Your task to perform on an android device: What does the iPhone 8 look like? Image 0: 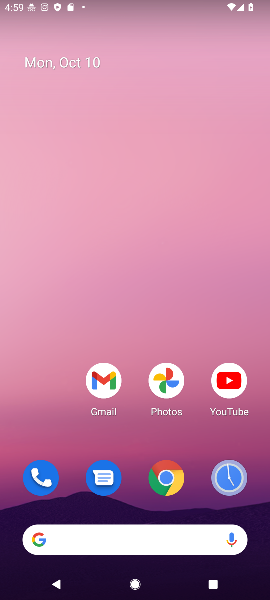
Step 0: click (72, 537)
Your task to perform on an android device: What does the iPhone 8 look like? Image 1: 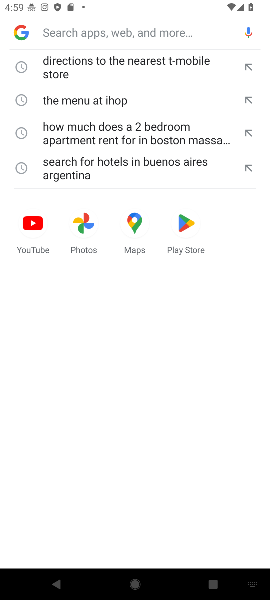
Step 1: type "What does the iPhone 8 look like?"
Your task to perform on an android device: What does the iPhone 8 look like? Image 2: 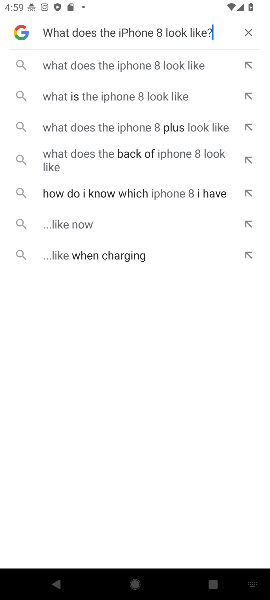
Step 2: click (144, 69)
Your task to perform on an android device: What does the iPhone 8 look like? Image 3: 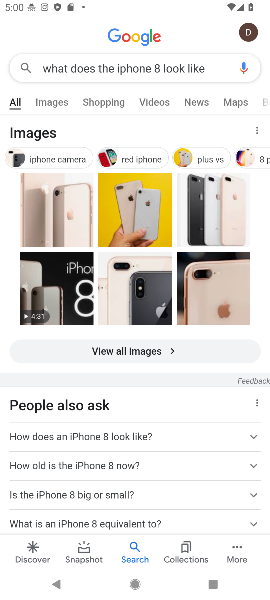
Step 3: click (40, 102)
Your task to perform on an android device: What does the iPhone 8 look like? Image 4: 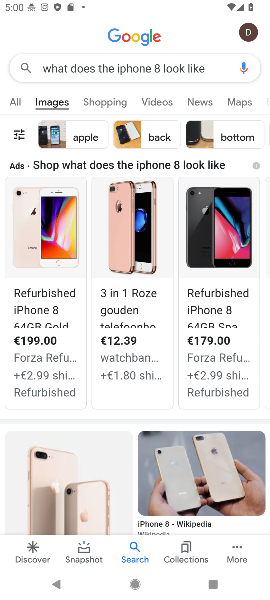
Step 4: task complete